Your task to perform on an android device: Go to internet settings Image 0: 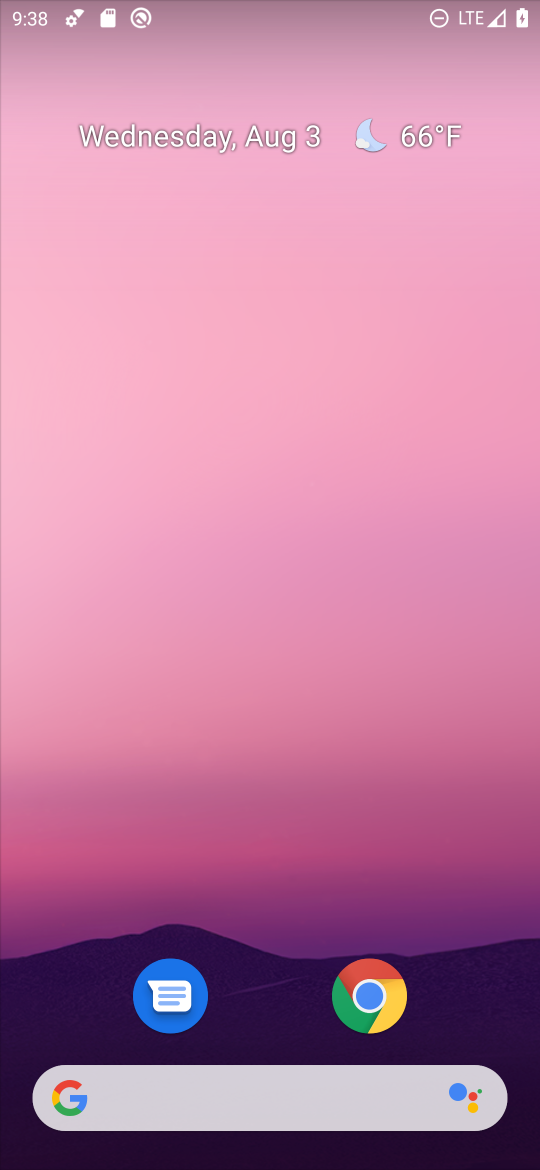
Step 0: drag from (273, 649) to (244, 11)
Your task to perform on an android device: Go to internet settings Image 1: 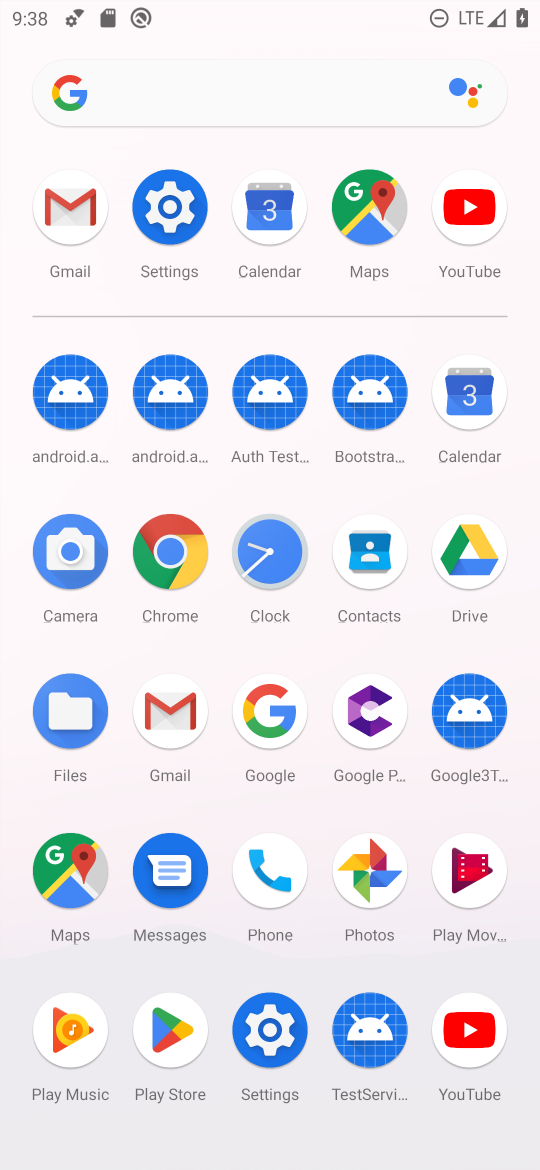
Step 1: click (175, 198)
Your task to perform on an android device: Go to internet settings Image 2: 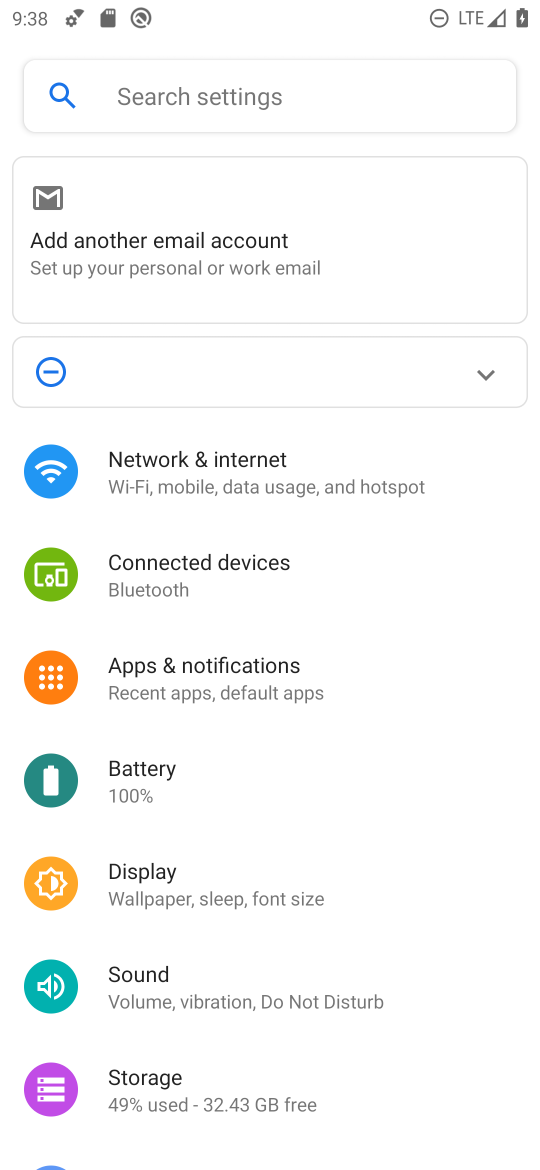
Step 2: click (202, 480)
Your task to perform on an android device: Go to internet settings Image 3: 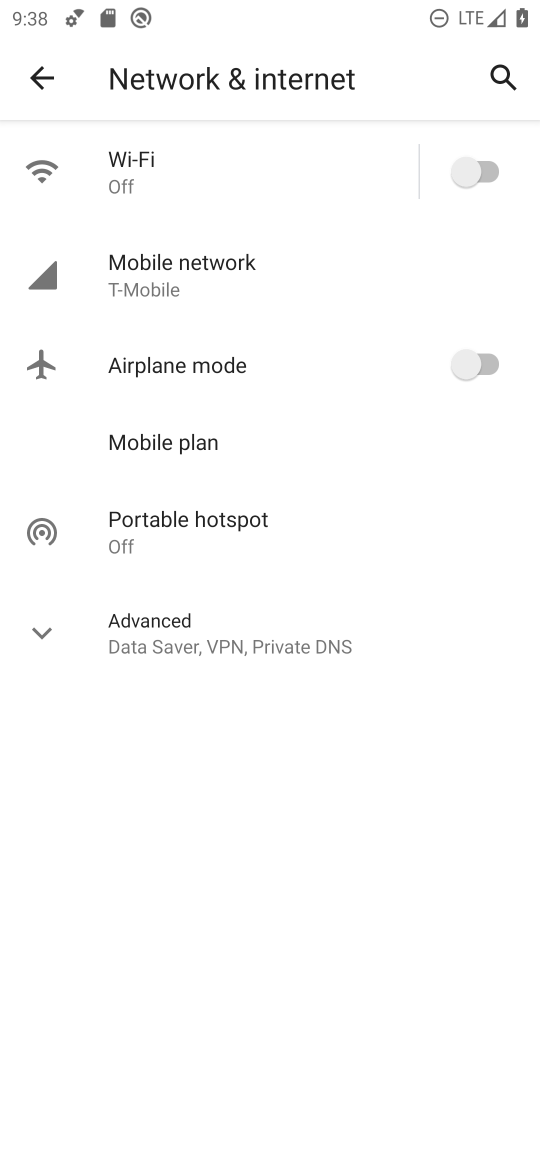
Step 3: task complete